Your task to perform on an android device: Go to eBay Image 0: 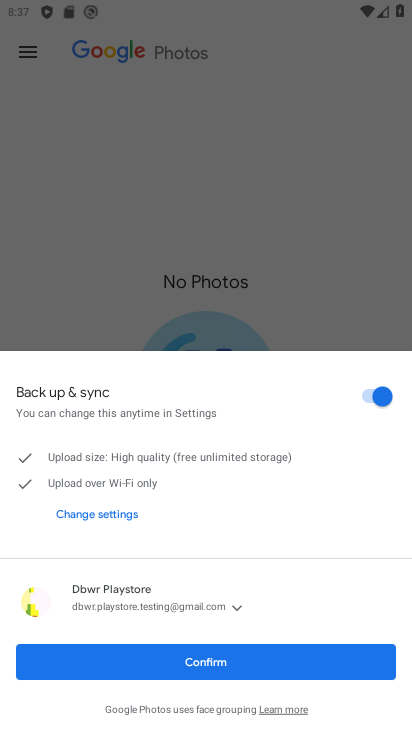
Step 0: click (302, 652)
Your task to perform on an android device: Go to eBay Image 1: 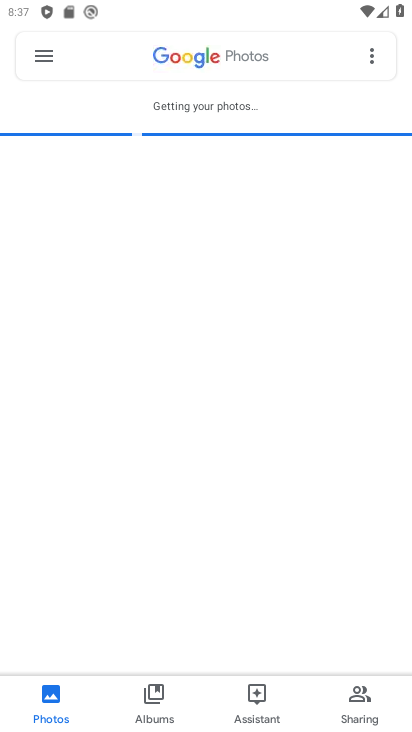
Step 1: press home button
Your task to perform on an android device: Go to eBay Image 2: 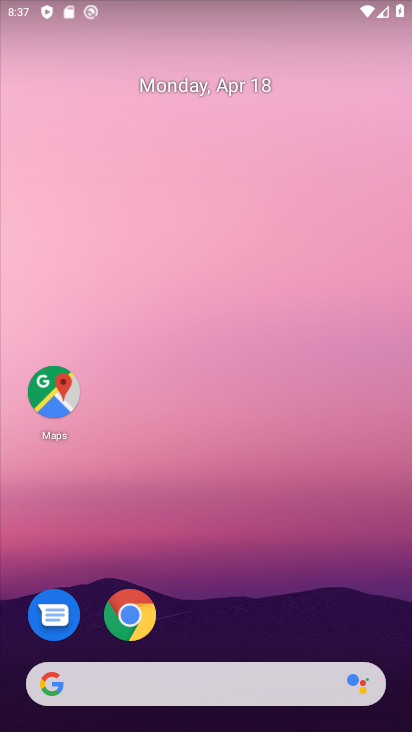
Step 2: click (131, 609)
Your task to perform on an android device: Go to eBay Image 3: 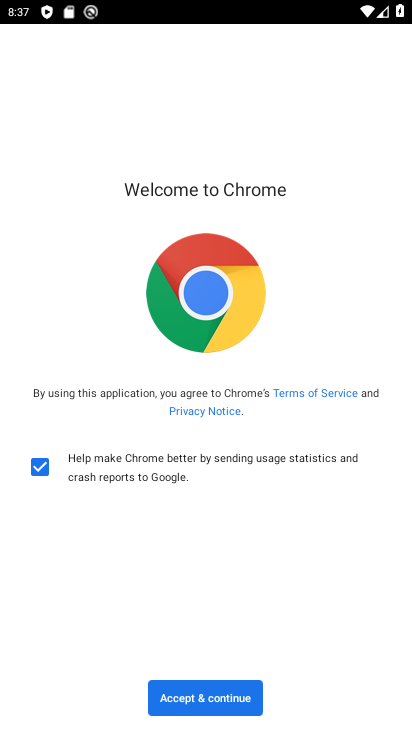
Step 3: click (209, 689)
Your task to perform on an android device: Go to eBay Image 4: 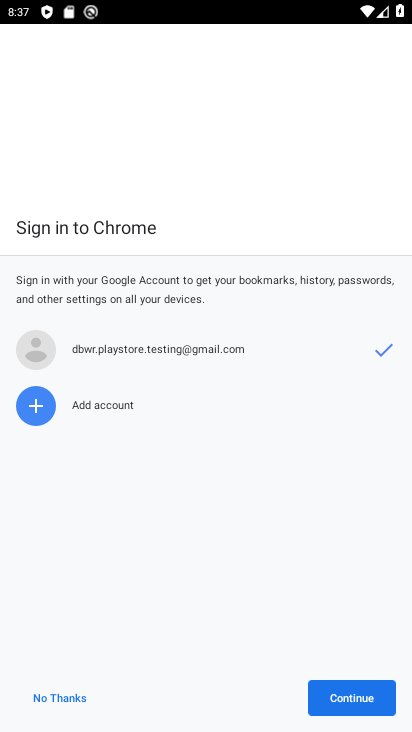
Step 4: click (352, 688)
Your task to perform on an android device: Go to eBay Image 5: 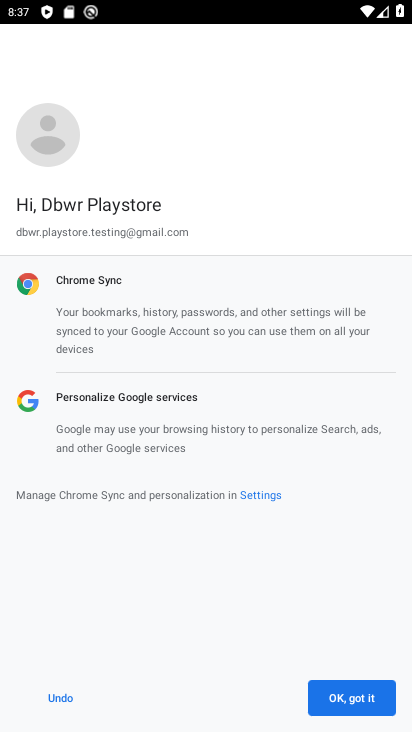
Step 5: click (350, 685)
Your task to perform on an android device: Go to eBay Image 6: 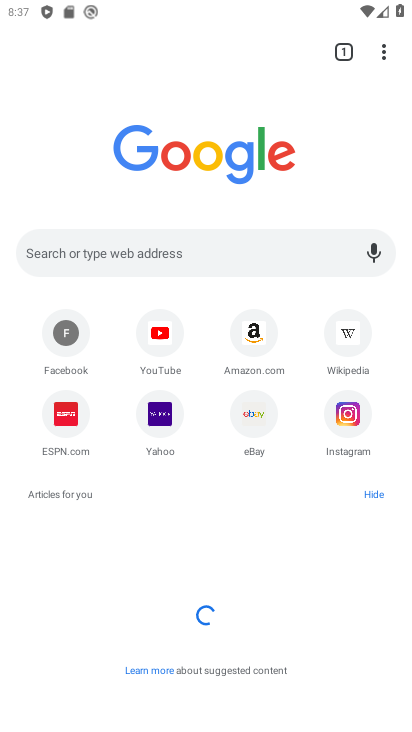
Step 6: click (148, 252)
Your task to perform on an android device: Go to eBay Image 7: 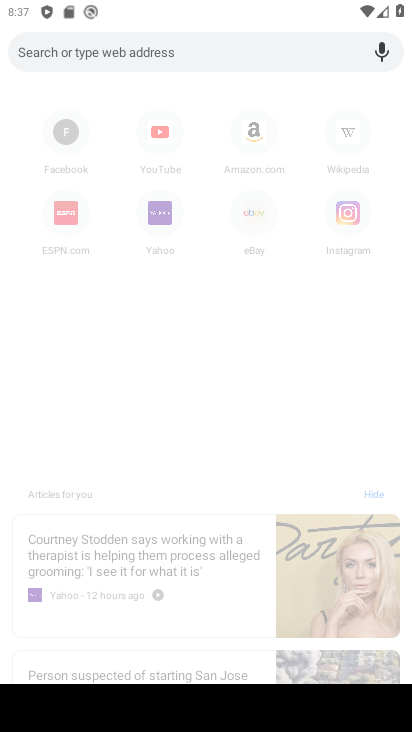
Step 7: type "ebay"
Your task to perform on an android device: Go to eBay Image 8: 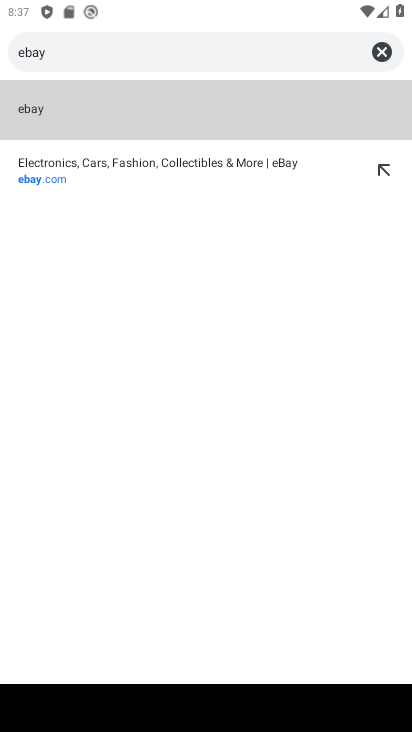
Step 8: click (88, 117)
Your task to perform on an android device: Go to eBay Image 9: 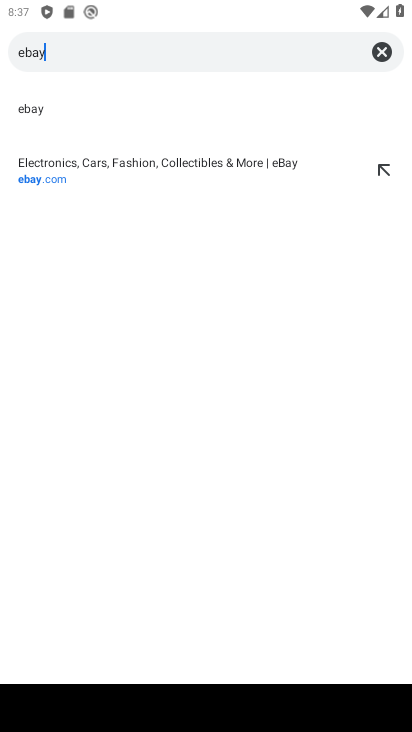
Step 9: click (25, 105)
Your task to perform on an android device: Go to eBay Image 10: 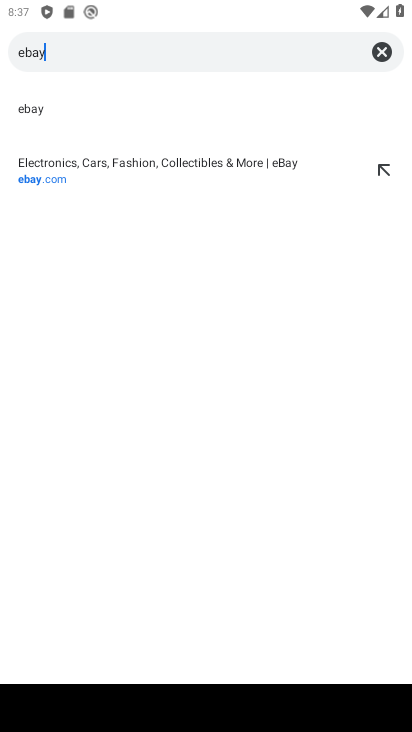
Step 10: click (39, 163)
Your task to perform on an android device: Go to eBay Image 11: 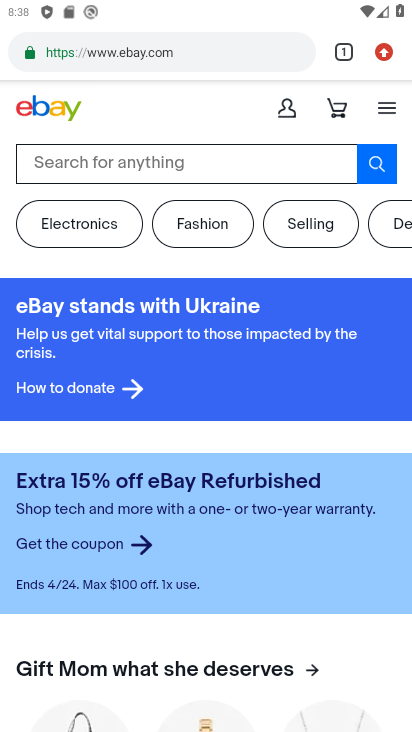
Step 11: task complete